Your task to perform on an android device: turn off airplane mode Image 0: 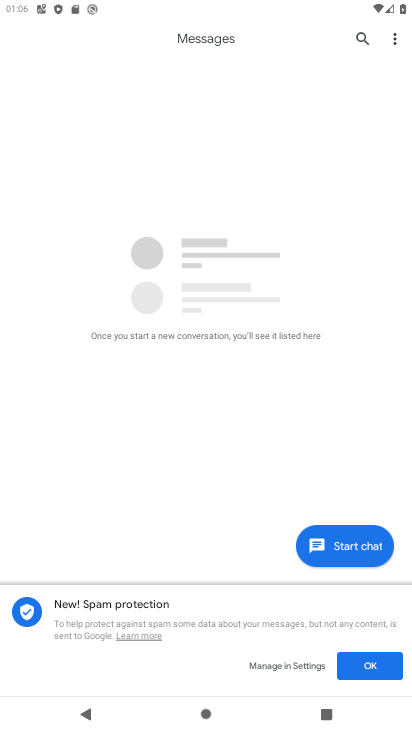
Step 0: press home button
Your task to perform on an android device: turn off airplane mode Image 1: 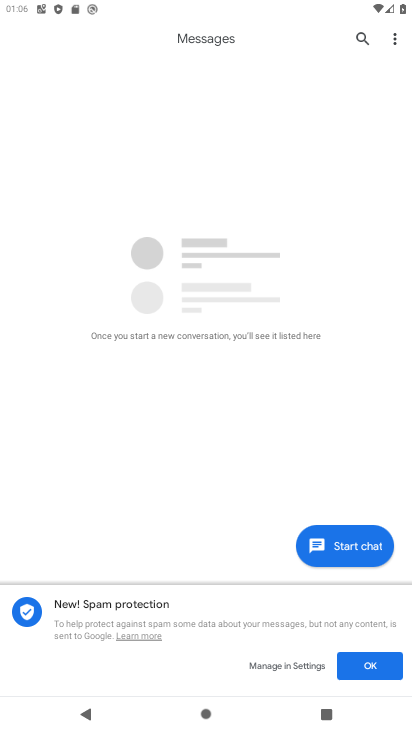
Step 1: press home button
Your task to perform on an android device: turn off airplane mode Image 2: 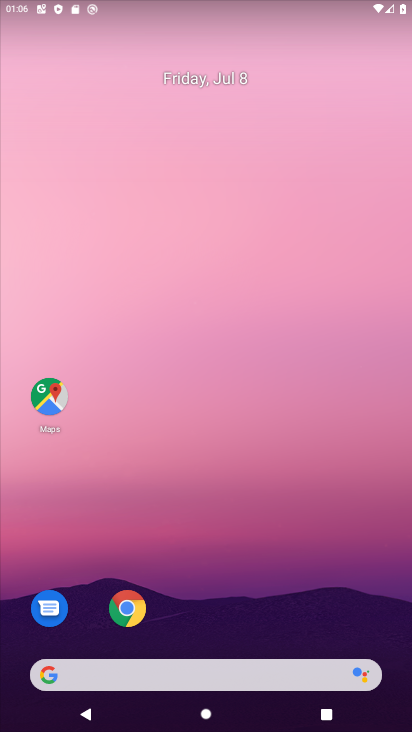
Step 2: drag from (348, 6) to (301, 547)
Your task to perform on an android device: turn off airplane mode Image 3: 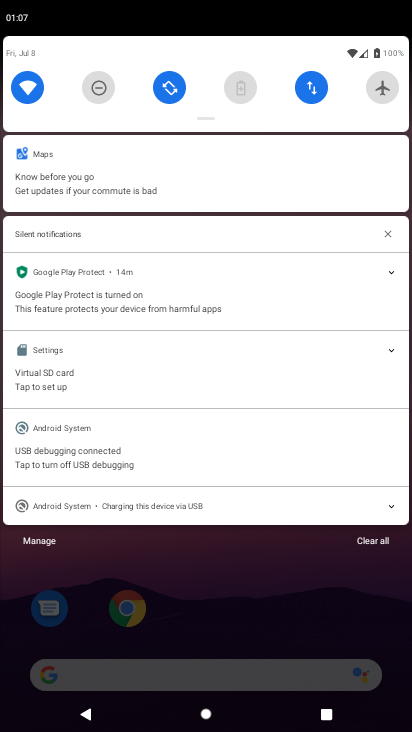
Step 3: click (386, 92)
Your task to perform on an android device: turn off airplane mode Image 4: 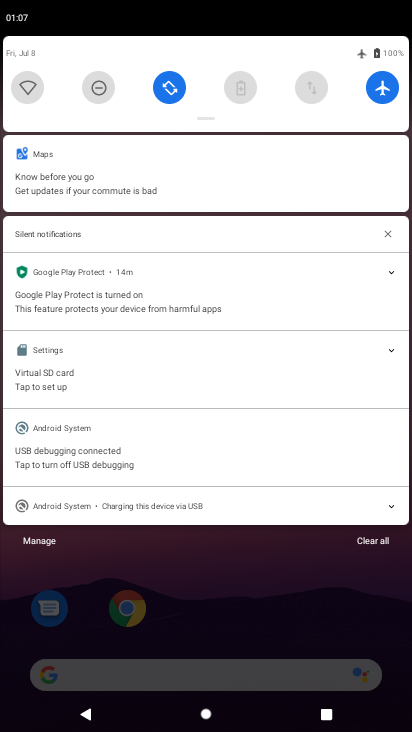
Step 4: task complete